Your task to perform on an android device: turn off airplane mode Image 0: 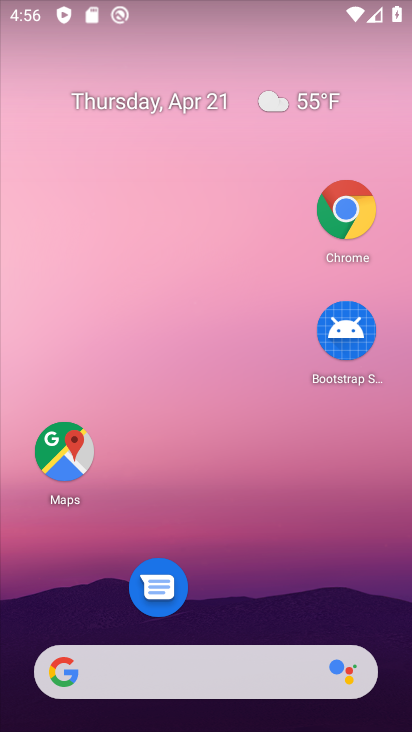
Step 0: drag from (266, 25) to (113, 473)
Your task to perform on an android device: turn off airplane mode Image 1: 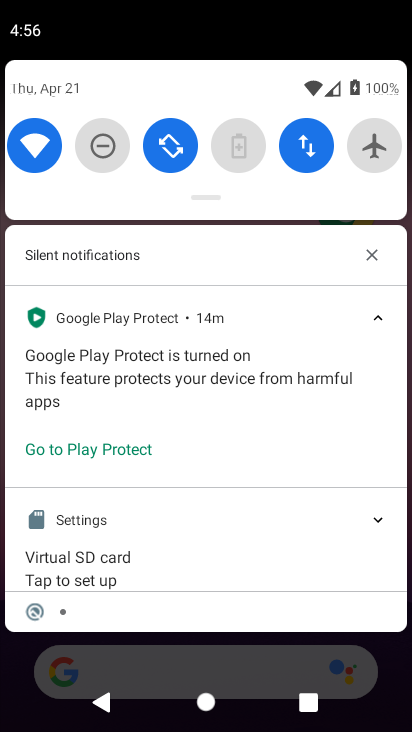
Step 1: task complete